Your task to perform on an android device: turn off notifications settings in the gmail app Image 0: 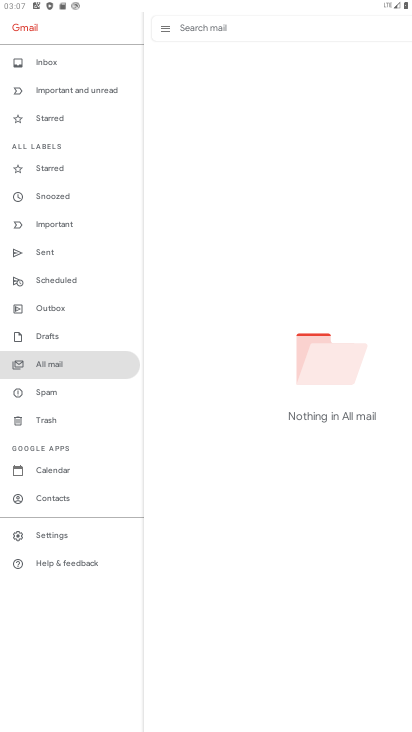
Step 0: click (49, 547)
Your task to perform on an android device: turn off notifications settings in the gmail app Image 1: 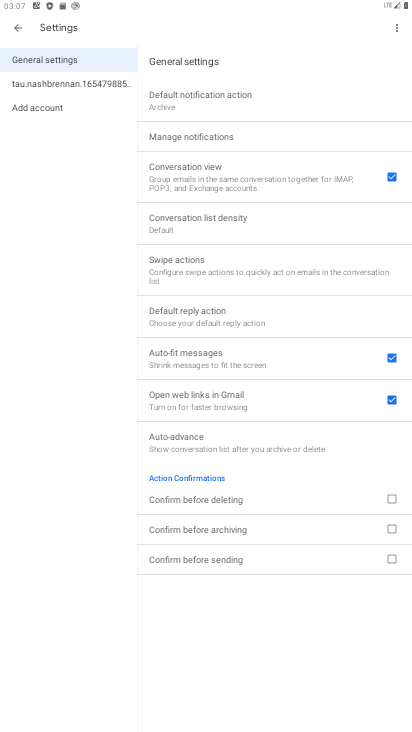
Step 1: click (124, 93)
Your task to perform on an android device: turn off notifications settings in the gmail app Image 2: 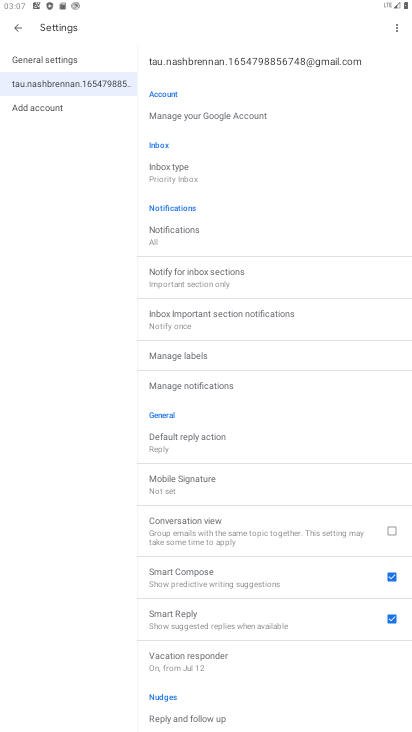
Step 2: click (201, 234)
Your task to perform on an android device: turn off notifications settings in the gmail app Image 3: 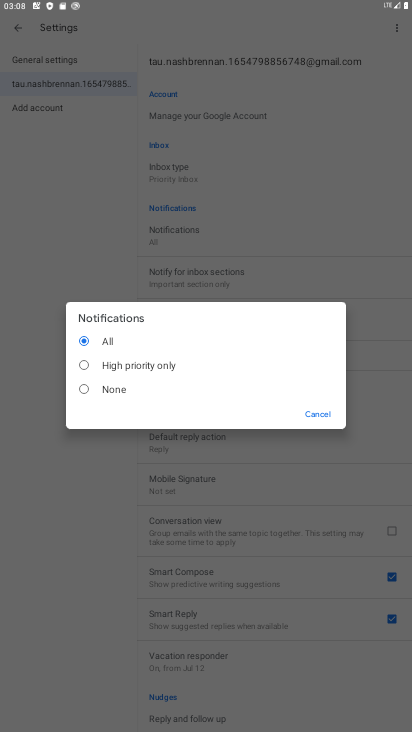
Step 3: click (127, 382)
Your task to perform on an android device: turn off notifications settings in the gmail app Image 4: 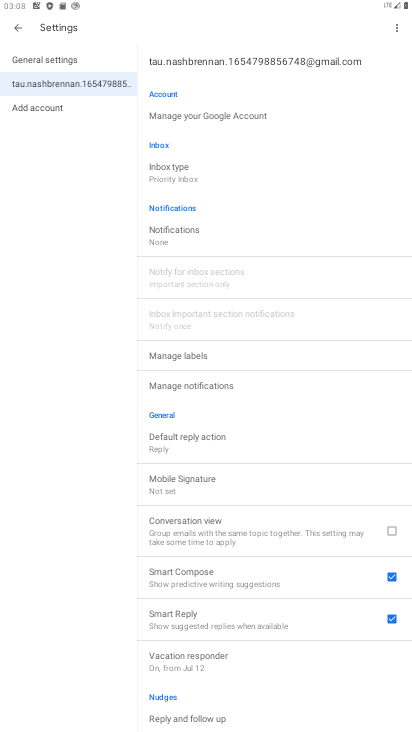
Step 4: task complete